Your task to perform on an android device: Open accessibility settings Image 0: 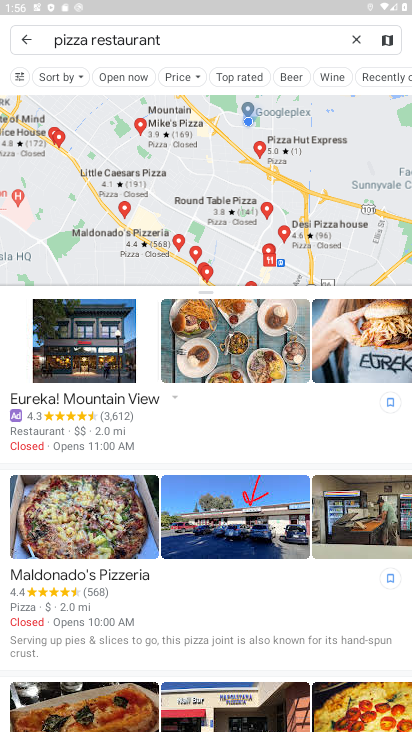
Step 0: press home button
Your task to perform on an android device: Open accessibility settings Image 1: 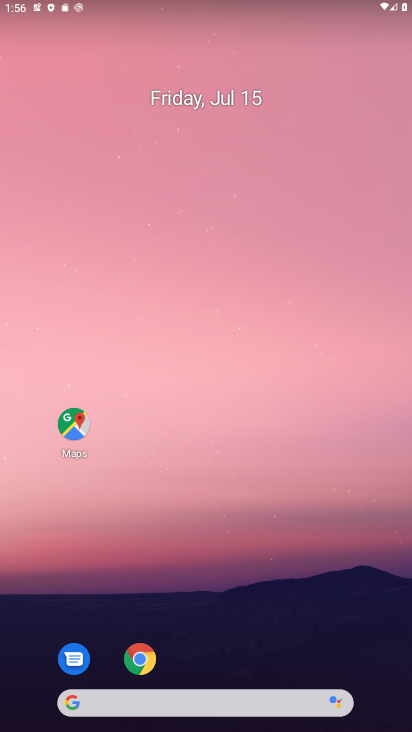
Step 1: drag from (226, 561) to (227, 223)
Your task to perform on an android device: Open accessibility settings Image 2: 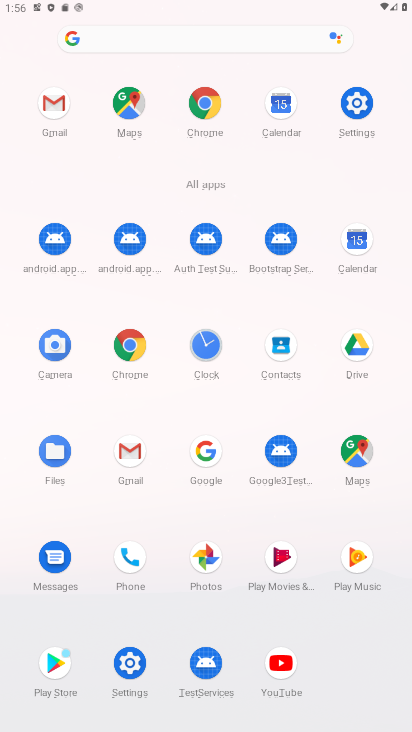
Step 2: click (372, 101)
Your task to perform on an android device: Open accessibility settings Image 3: 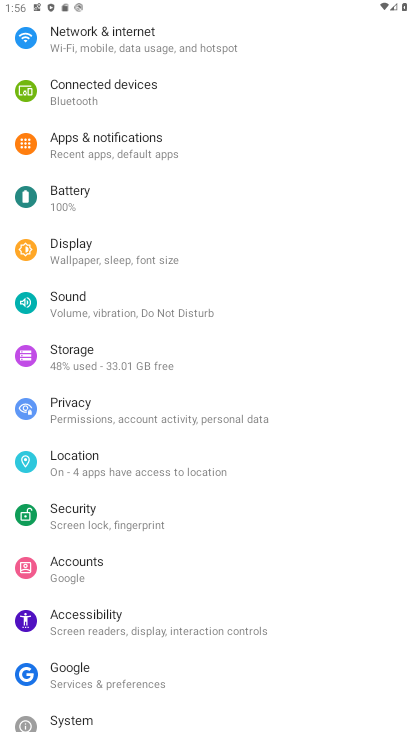
Step 3: click (128, 624)
Your task to perform on an android device: Open accessibility settings Image 4: 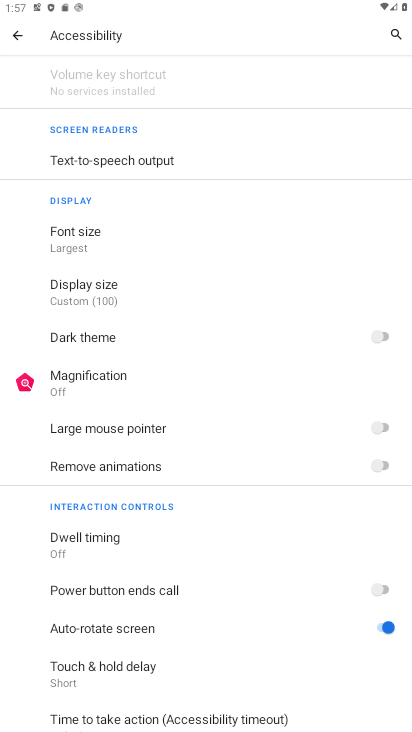
Step 4: task complete